Your task to perform on an android device: Search for pizza restaurants on Maps Image 0: 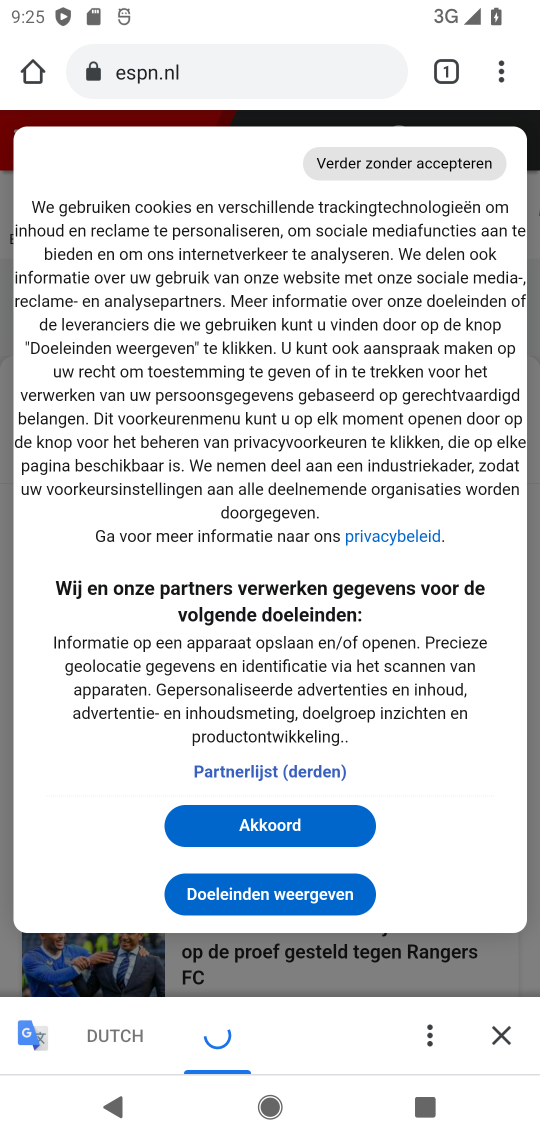
Step 0: press home button
Your task to perform on an android device: Search for pizza restaurants on Maps Image 1: 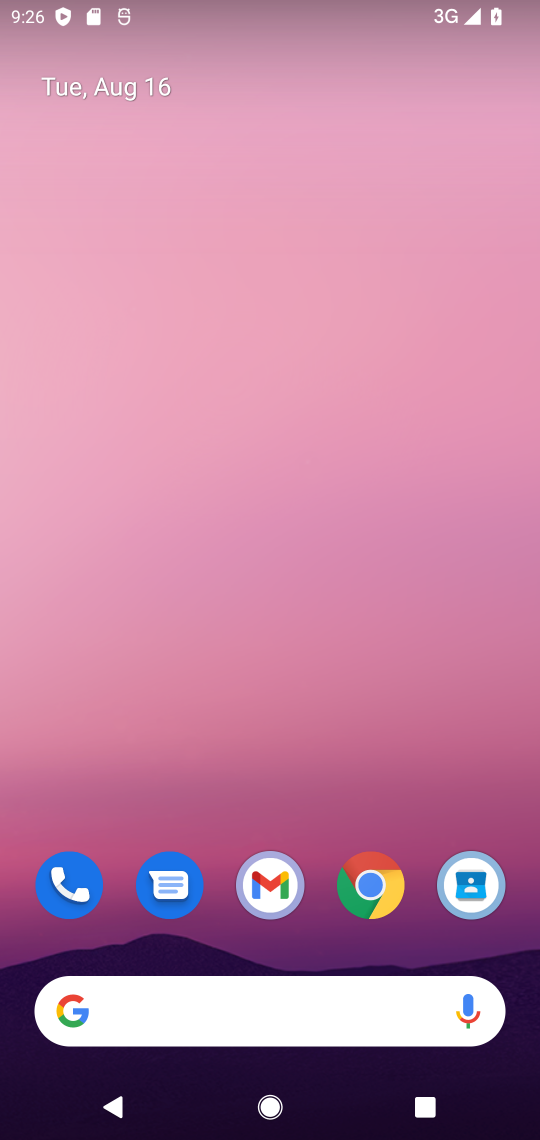
Step 1: drag from (231, 769) to (341, 57)
Your task to perform on an android device: Search for pizza restaurants on Maps Image 2: 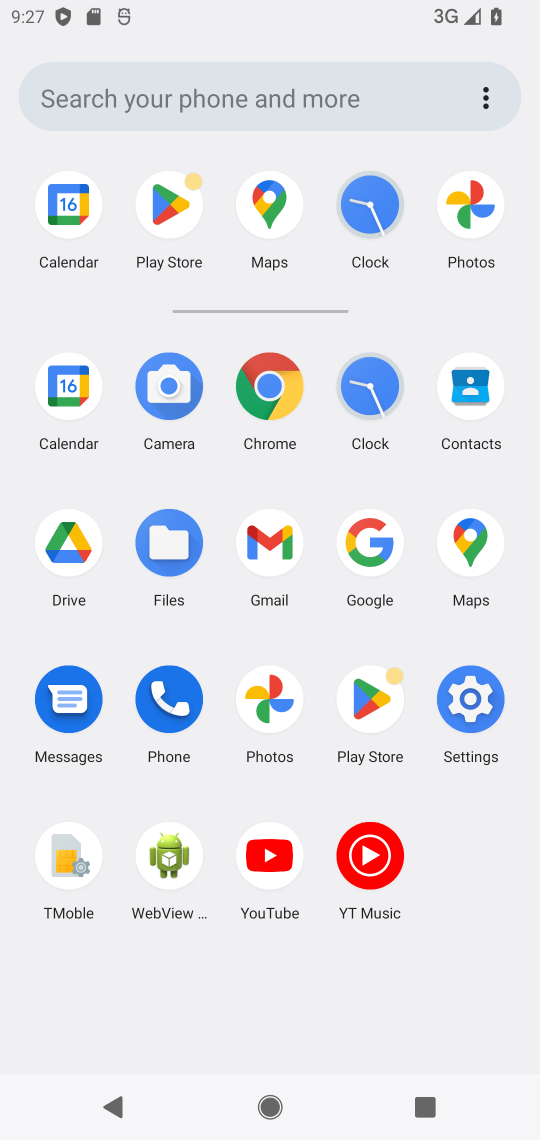
Step 2: click (467, 555)
Your task to perform on an android device: Search for pizza restaurants on Maps Image 3: 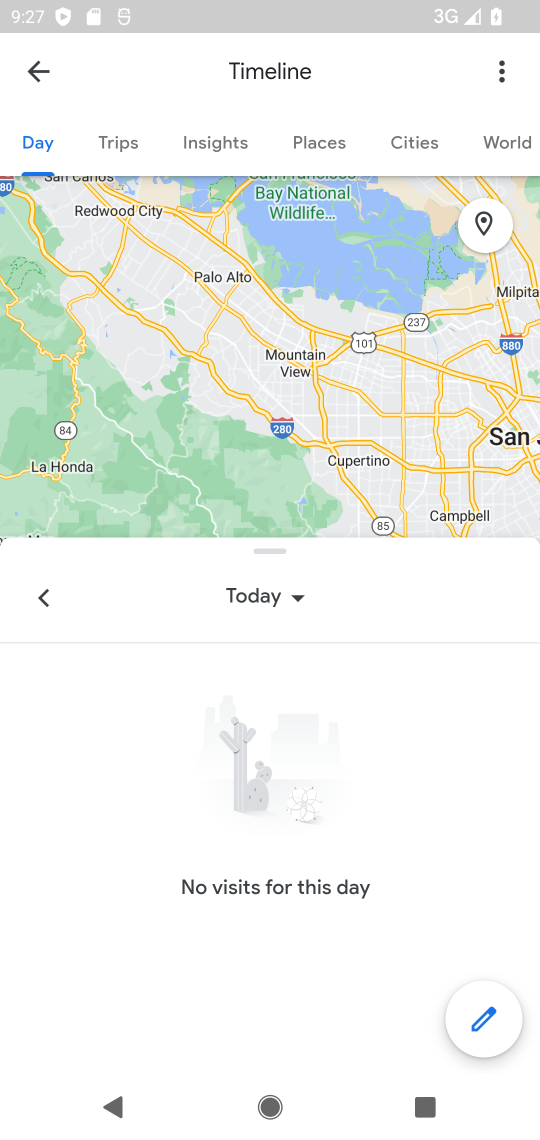
Step 3: click (32, 64)
Your task to perform on an android device: Search for pizza restaurants on Maps Image 4: 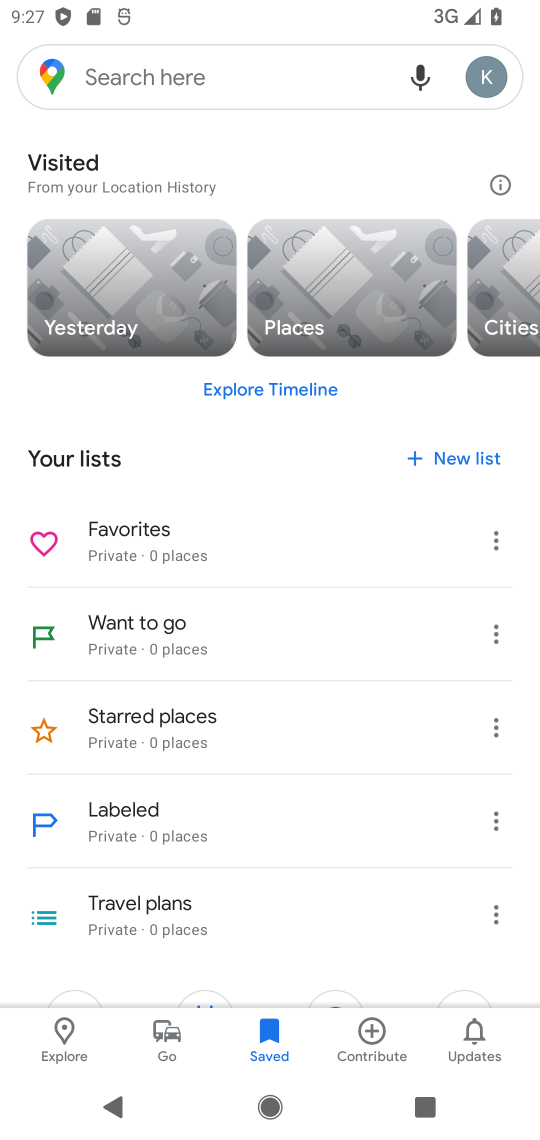
Step 4: click (210, 79)
Your task to perform on an android device: Search for pizza restaurants on Maps Image 5: 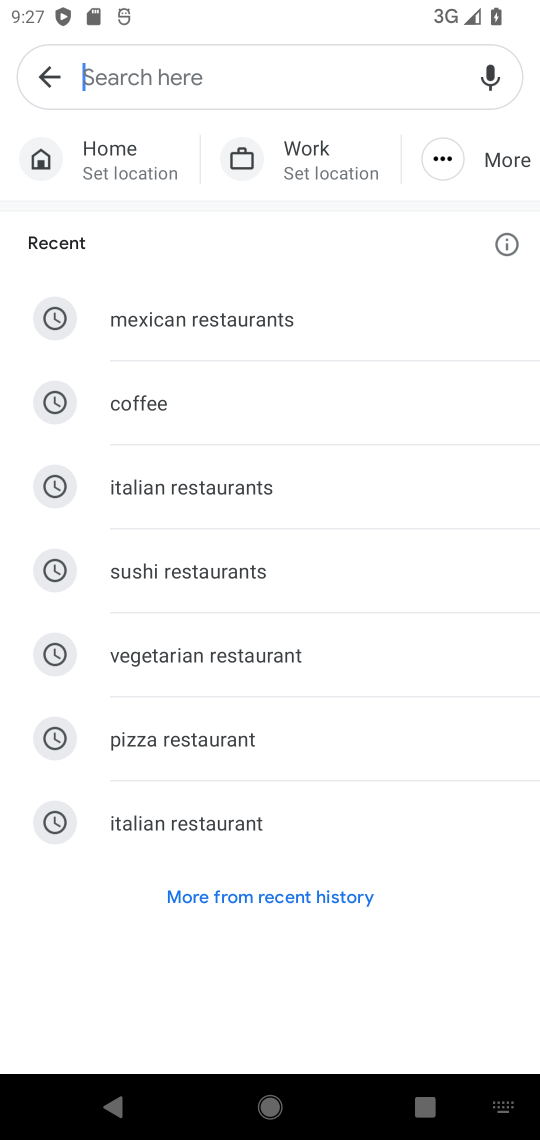
Step 5: click (229, 742)
Your task to perform on an android device: Search for pizza restaurants on Maps Image 6: 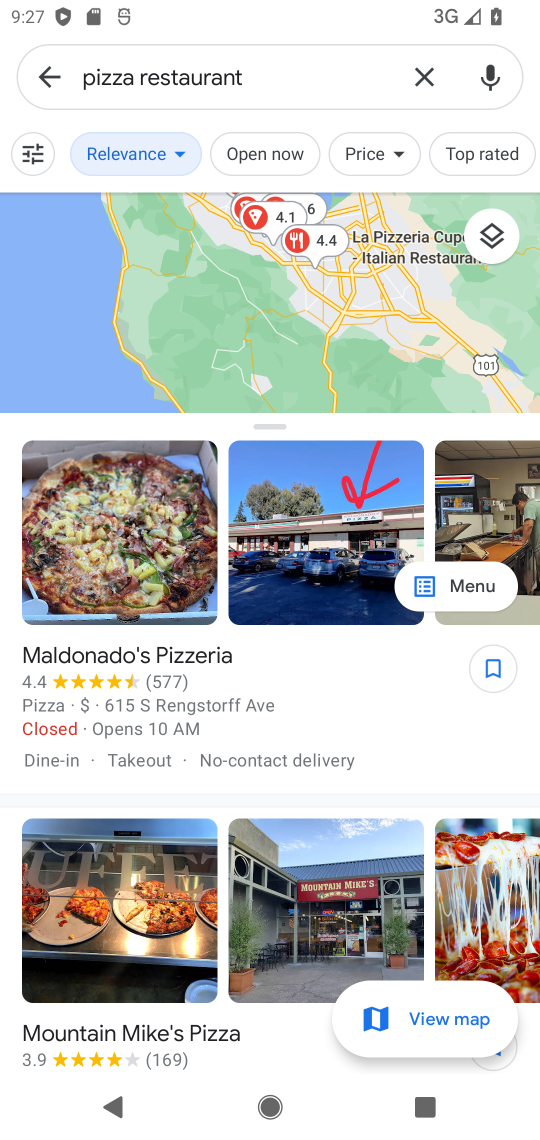
Step 6: task complete